Your task to perform on an android device: Open wifi settings Image 0: 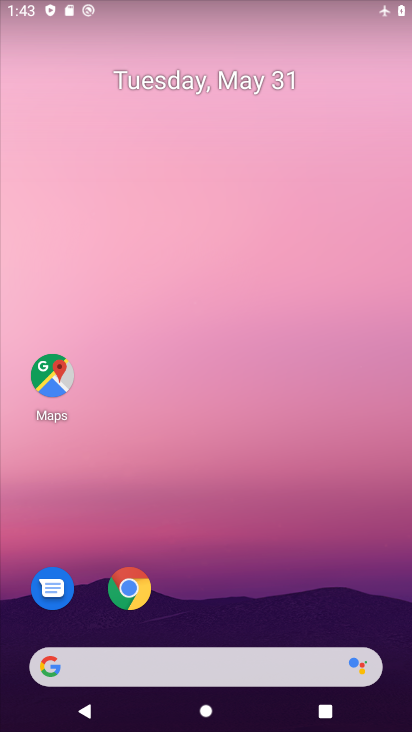
Step 0: drag from (163, 720) to (118, 59)
Your task to perform on an android device: Open wifi settings Image 1: 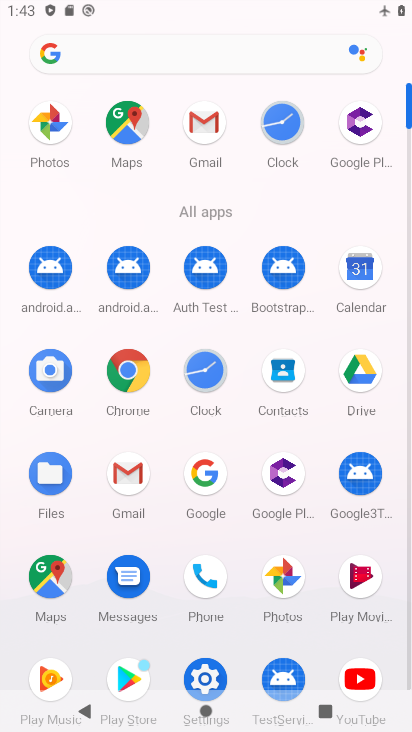
Step 1: click (209, 686)
Your task to perform on an android device: Open wifi settings Image 2: 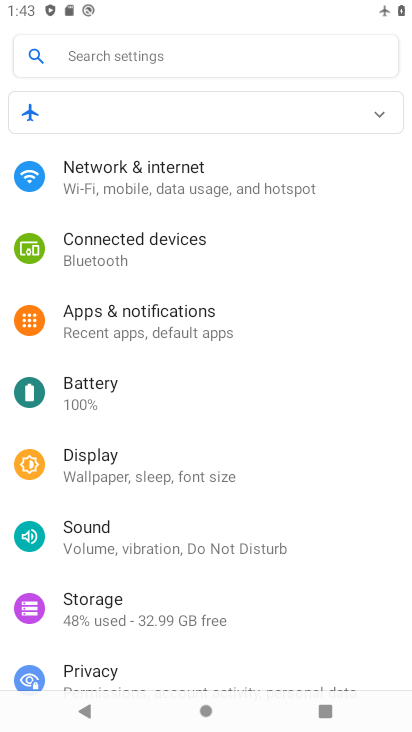
Step 2: click (183, 190)
Your task to perform on an android device: Open wifi settings Image 3: 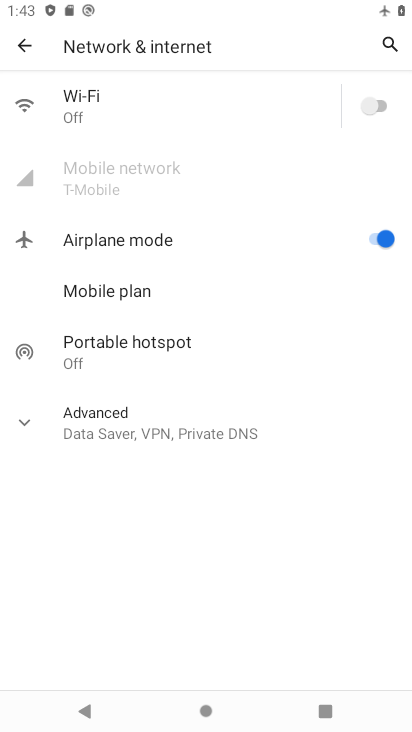
Step 3: click (63, 102)
Your task to perform on an android device: Open wifi settings Image 4: 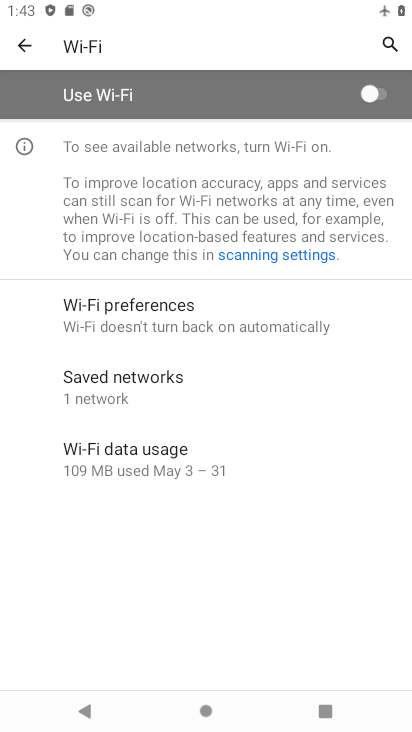
Step 4: task complete